Your task to perform on an android device: Go to location settings Image 0: 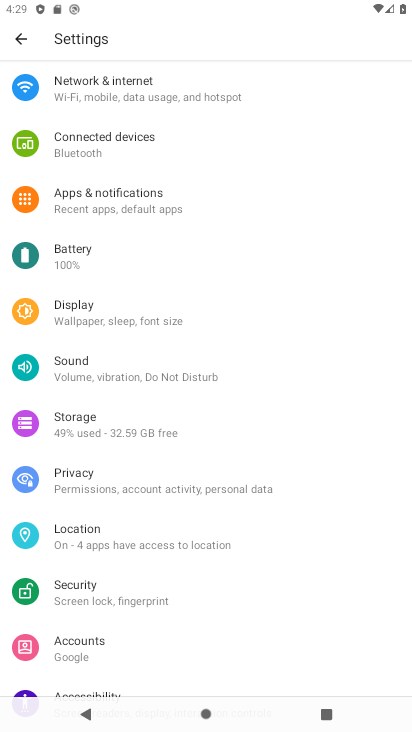
Step 0: click (102, 549)
Your task to perform on an android device: Go to location settings Image 1: 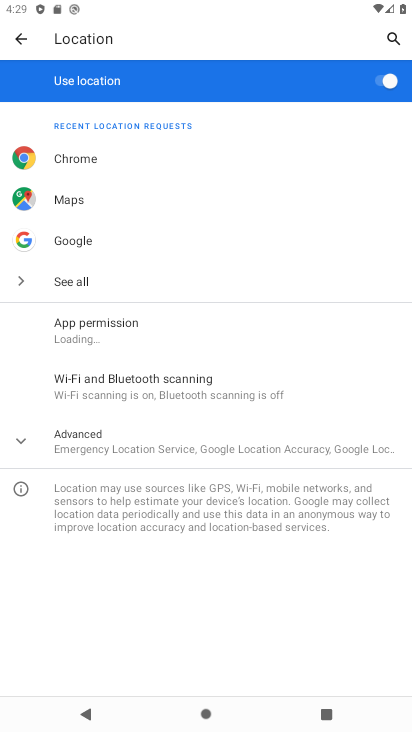
Step 1: task complete